Your task to perform on an android device: Go to CNN.com Image 0: 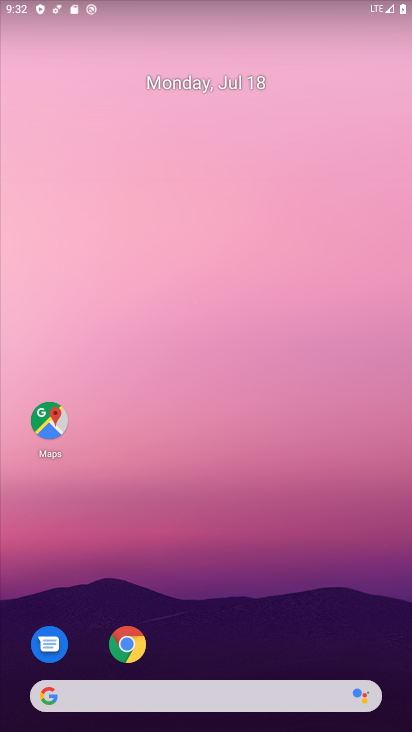
Step 0: drag from (319, 626) to (354, 196)
Your task to perform on an android device: Go to CNN.com Image 1: 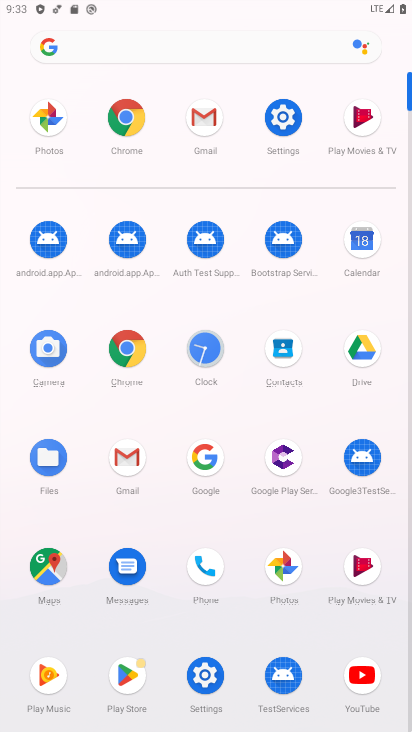
Step 1: click (127, 350)
Your task to perform on an android device: Go to CNN.com Image 2: 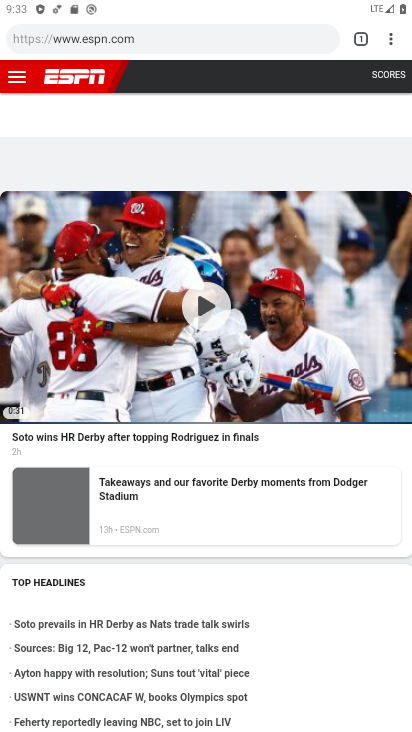
Step 2: click (186, 42)
Your task to perform on an android device: Go to CNN.com Image 3: 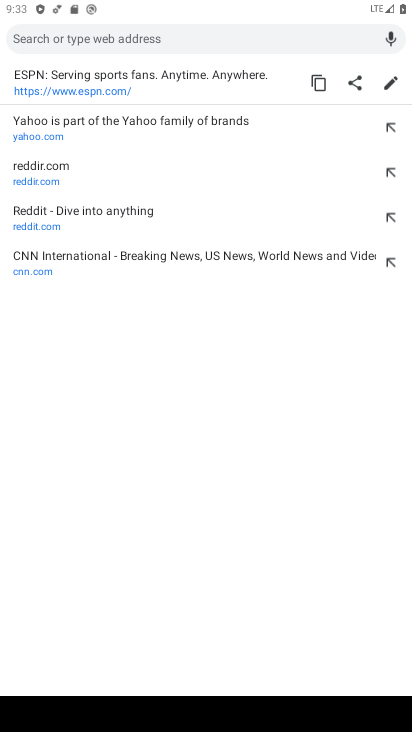
Step 3: type "cnn.com"
Your task to perform on an android device: Go to CNN.com Image 4: 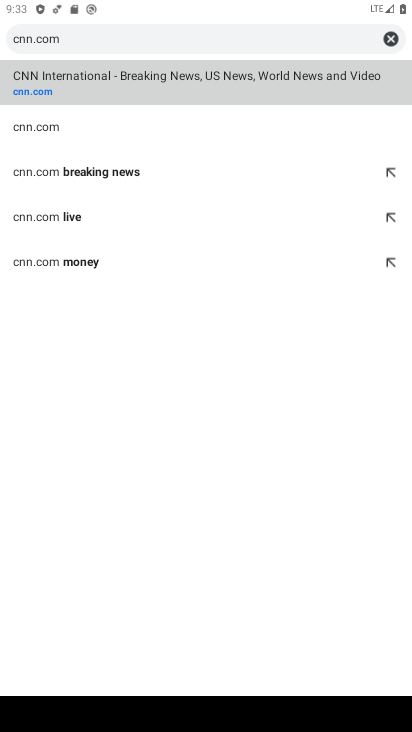
Step 4: click (244, 85)
Your task to perform on an android device: Go to CNN.com Image 5: 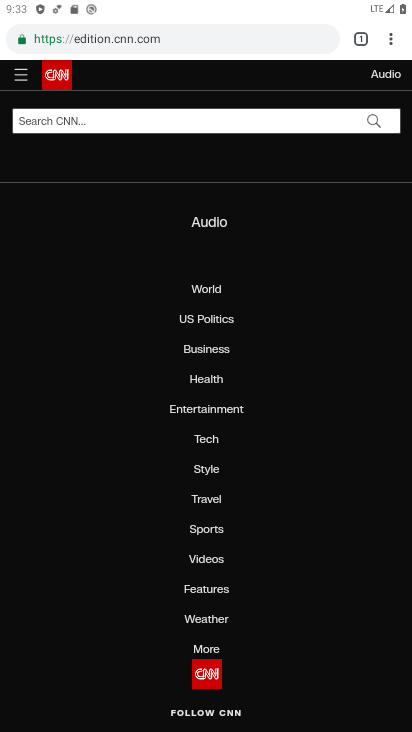
Step 5: task complete